Your task to perform on an android device: Search for acer predator on ebay.com, select the first entry, and add it to the cart. Image 0: 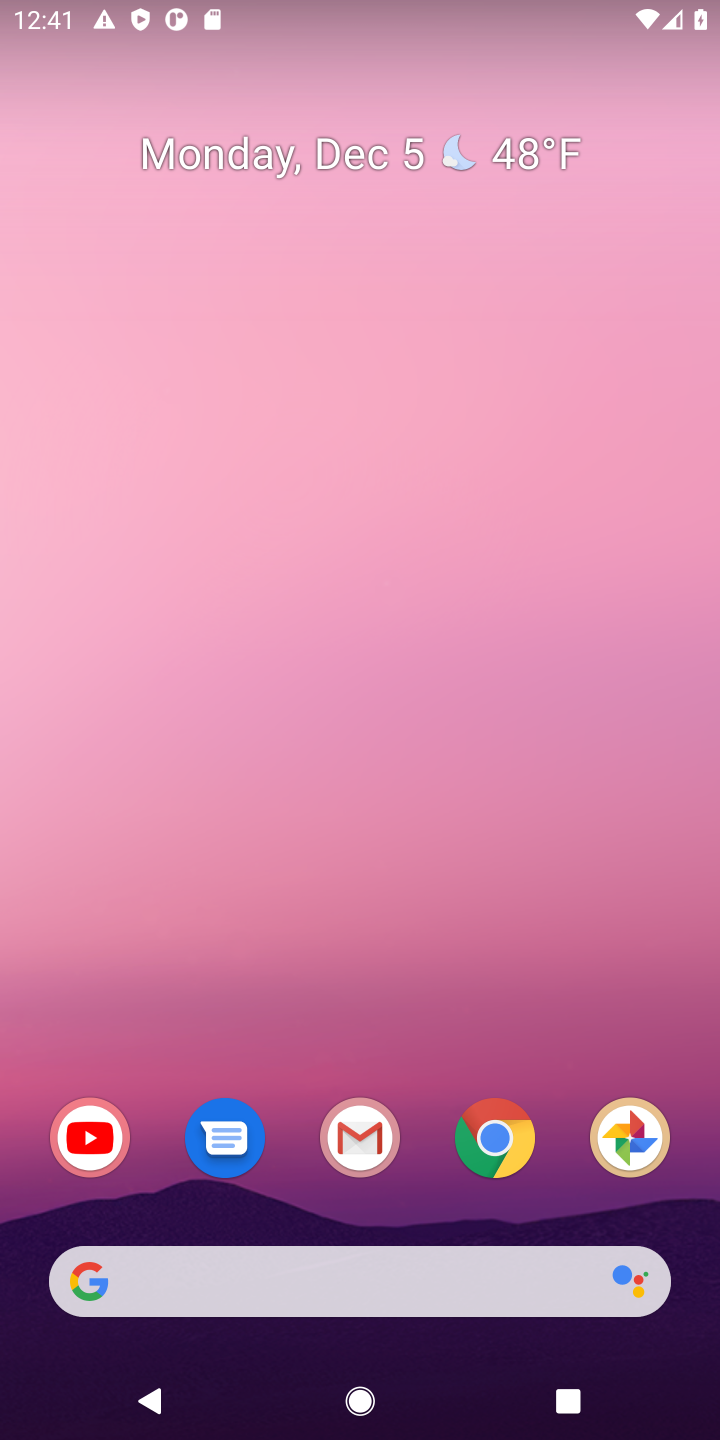
Step 0: click (474, 1169)
Your task to perform on an android device: Search for acer predator on ebay.com, select the first entry, and add it to the cart. Image 1: 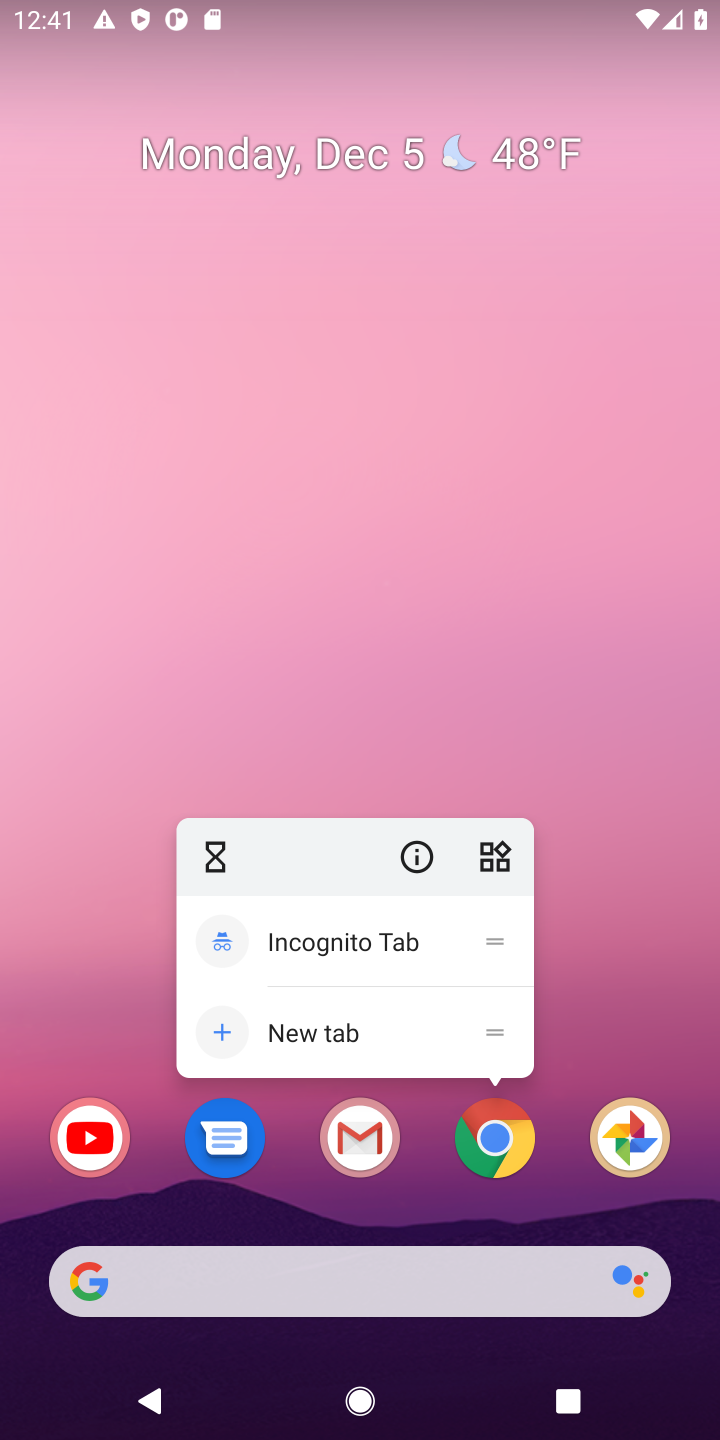
Step 1: click (486, 1167)
Your task to perform on an android device: Search for acer predator on ebay.com, select the first entry, and add it to the cart. Image 2: 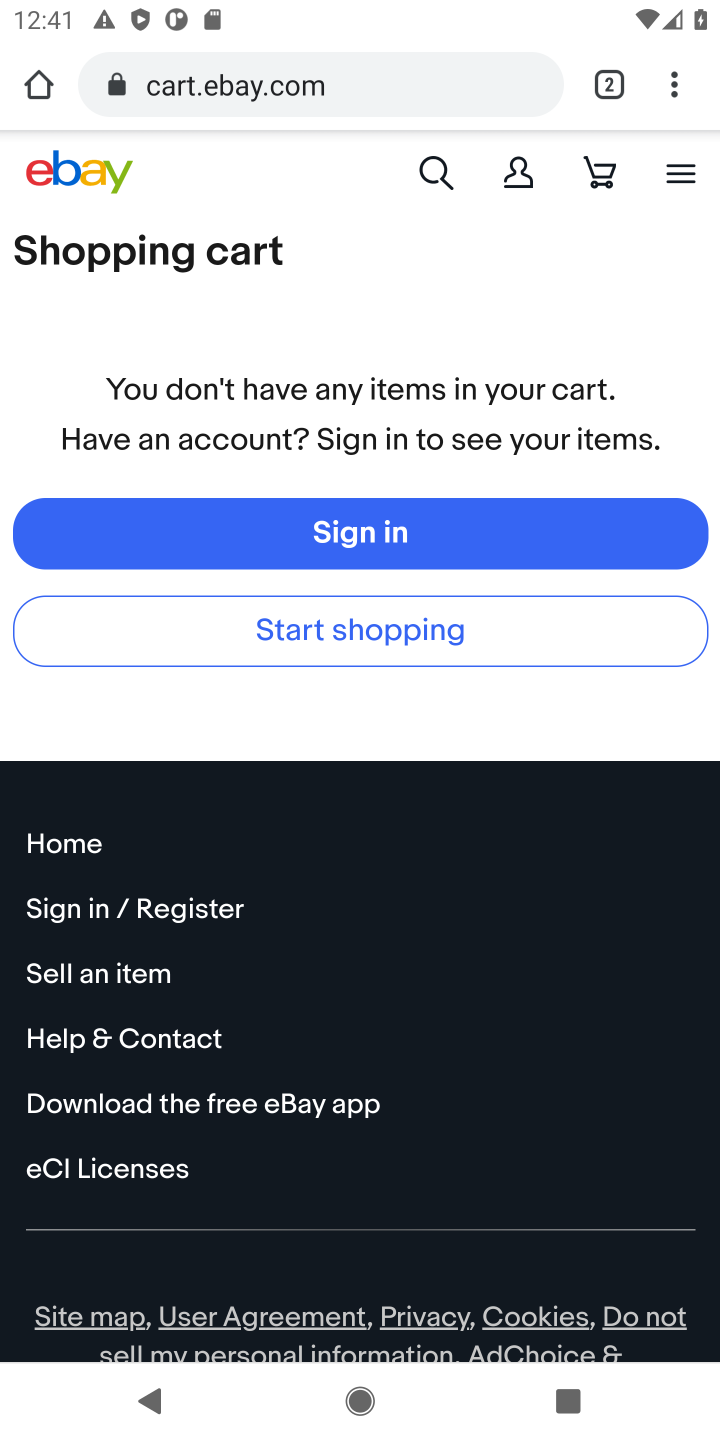
Step 2: click (435, 182)
Your task to perform on an android device: Search for acer predator on ebay.com, select the first entry, and add it to the cart. Image 3: 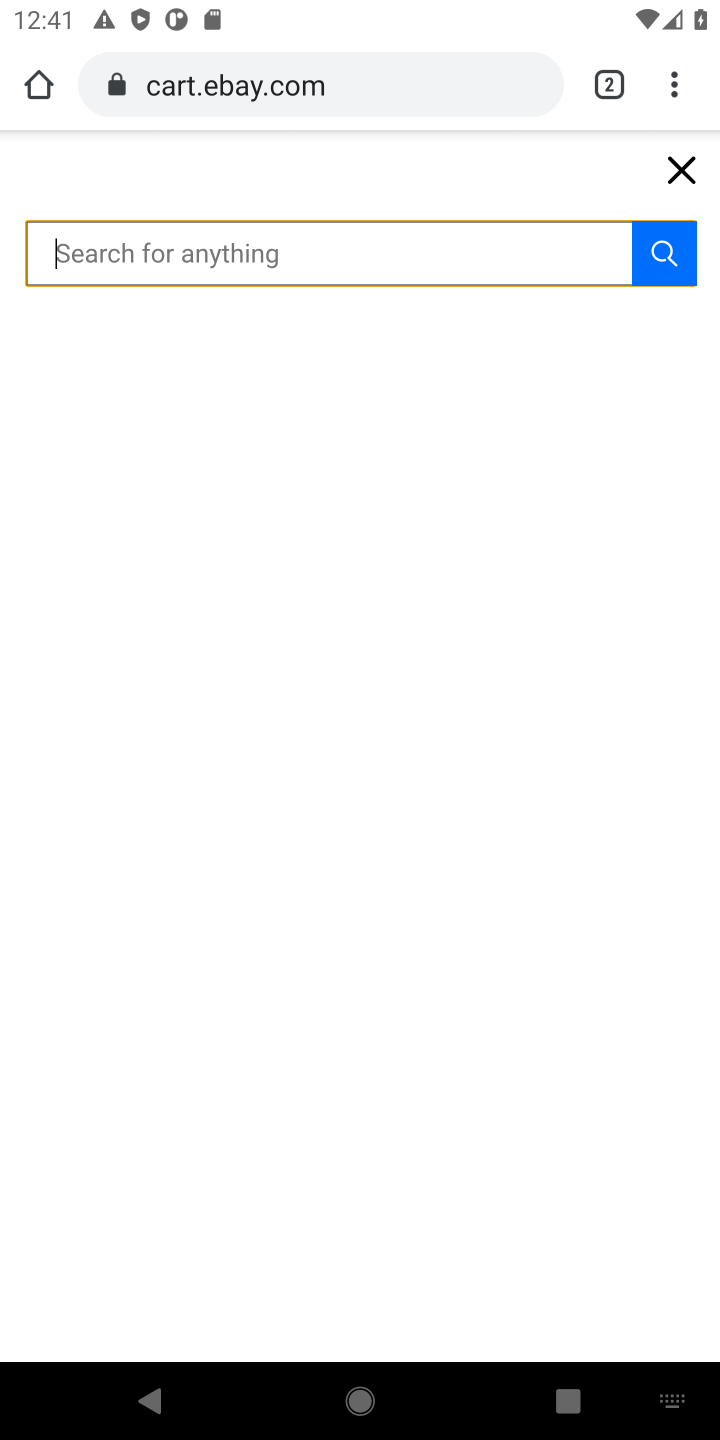
Step 3: type "acer predator"
Your task to perform on an android device: Search for acer predator on ebay.com, select the first entry, and add it to the cart. Image 4: 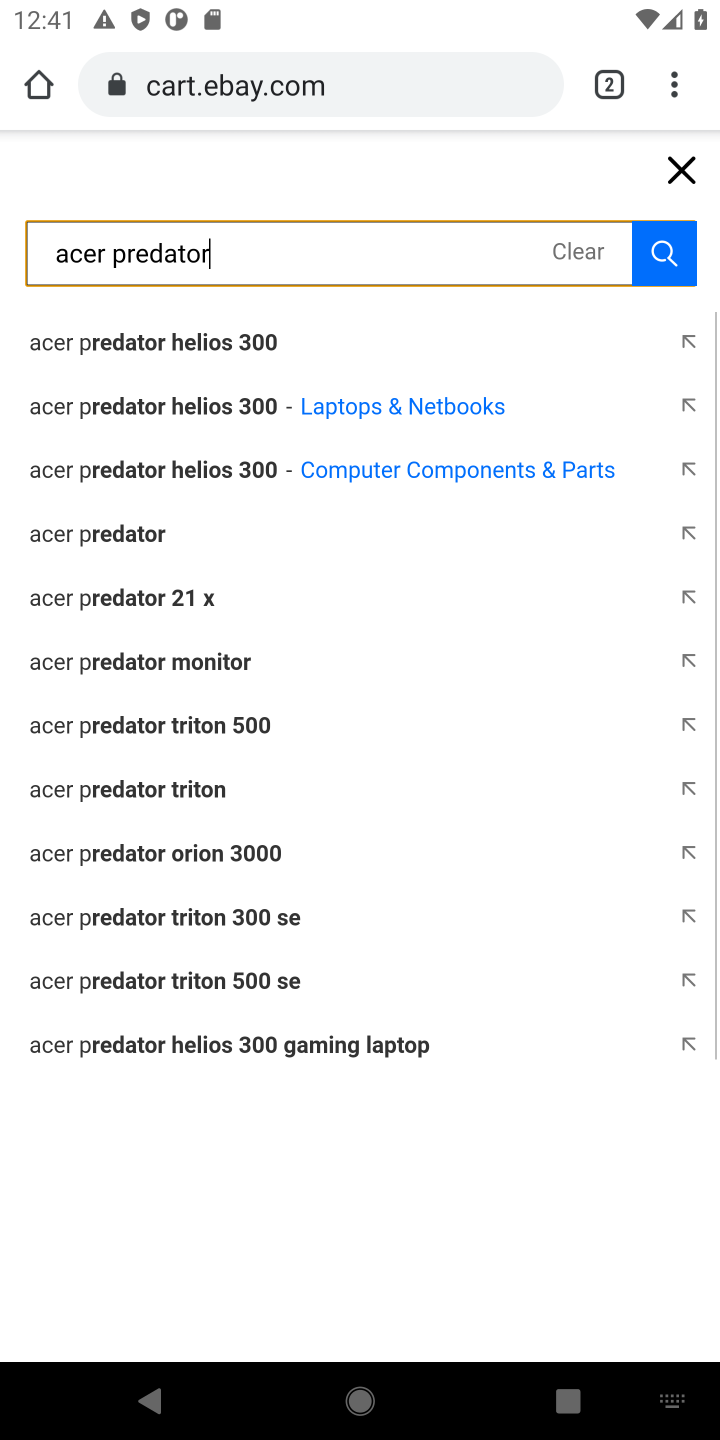
Step 4: type ""
Your task to perform on an android device: Search for acer predator on ebay.com, select the first entry, and add it to the cart. Image 5: 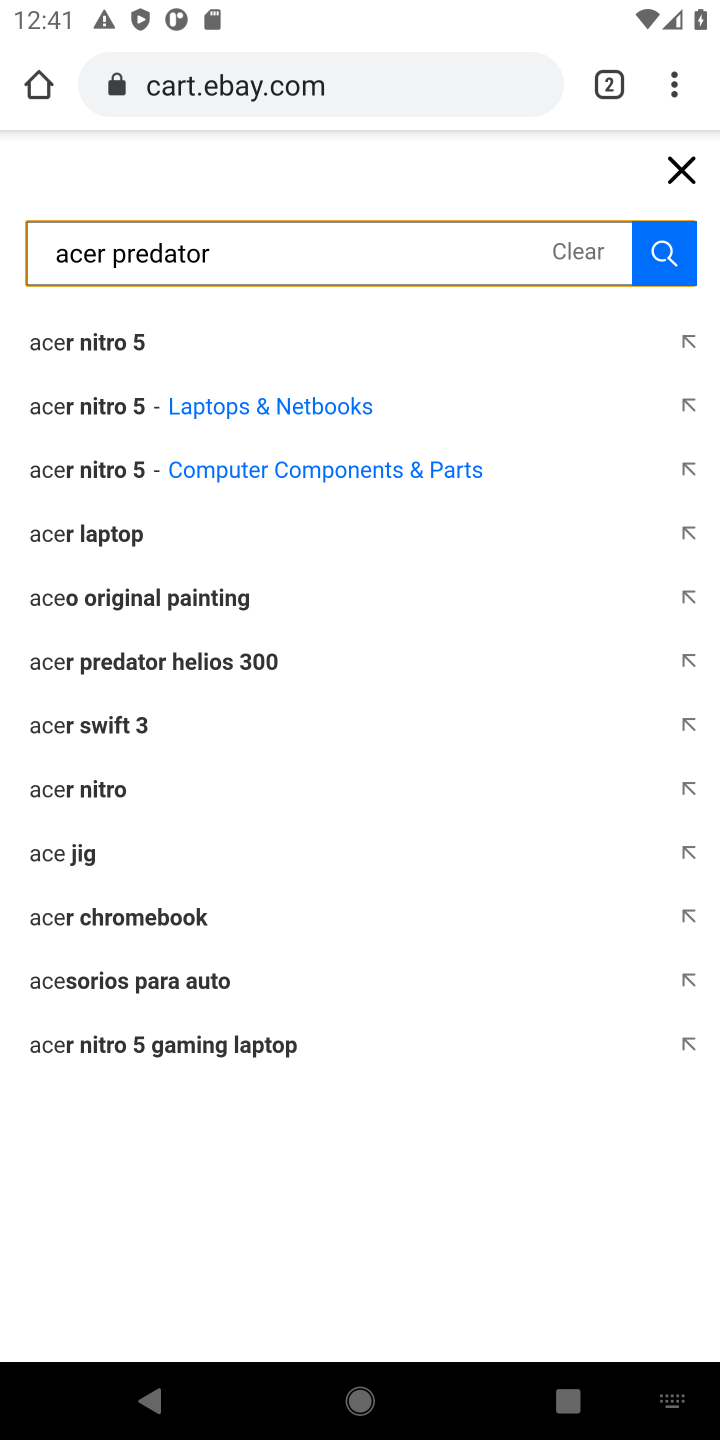
Step 5: click (658, 268)
Your task to perform on an android device: Search for acer predator on ebay.com, select the first entry, and add it to the cart. Image 6: 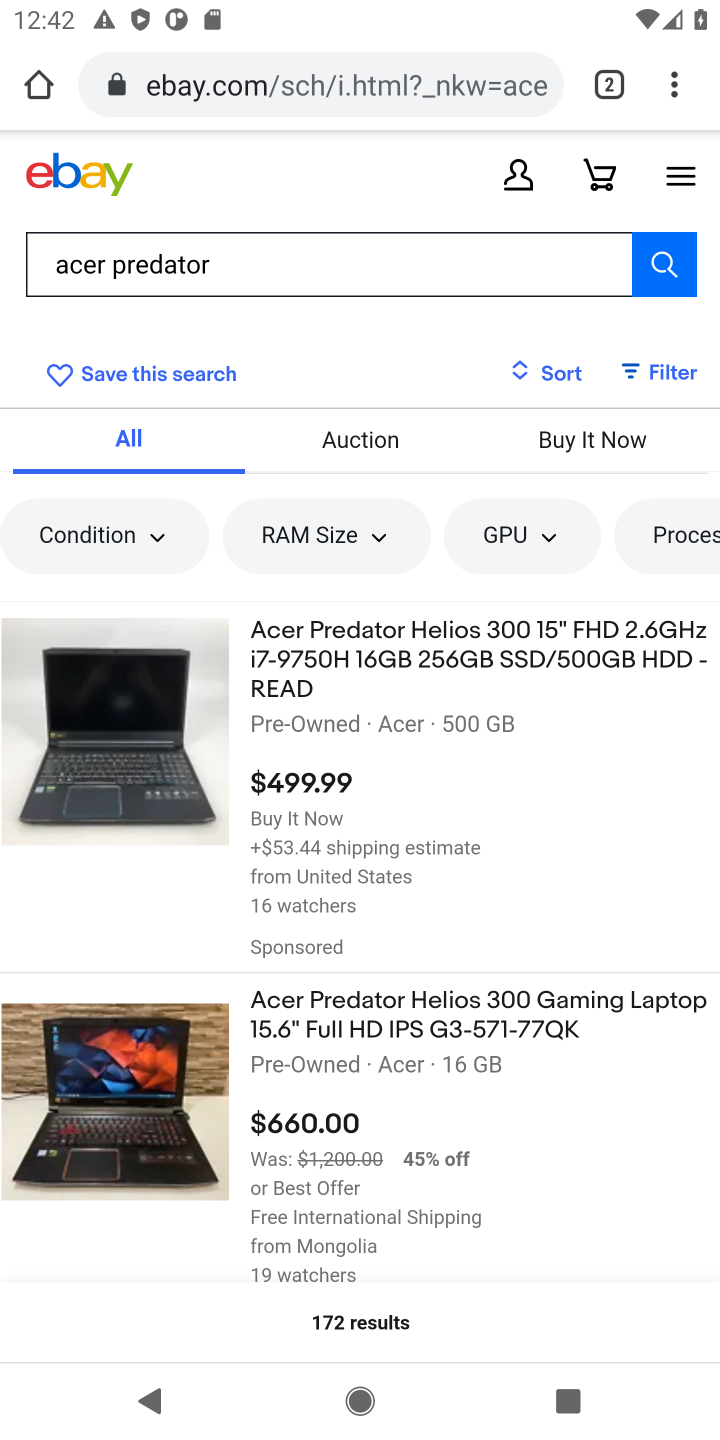
Step 6: click (389, 675)
Your task to perform on an android device: Search for acer predator on ebay.com, select the first entry, and add it to the cart. Image 7: 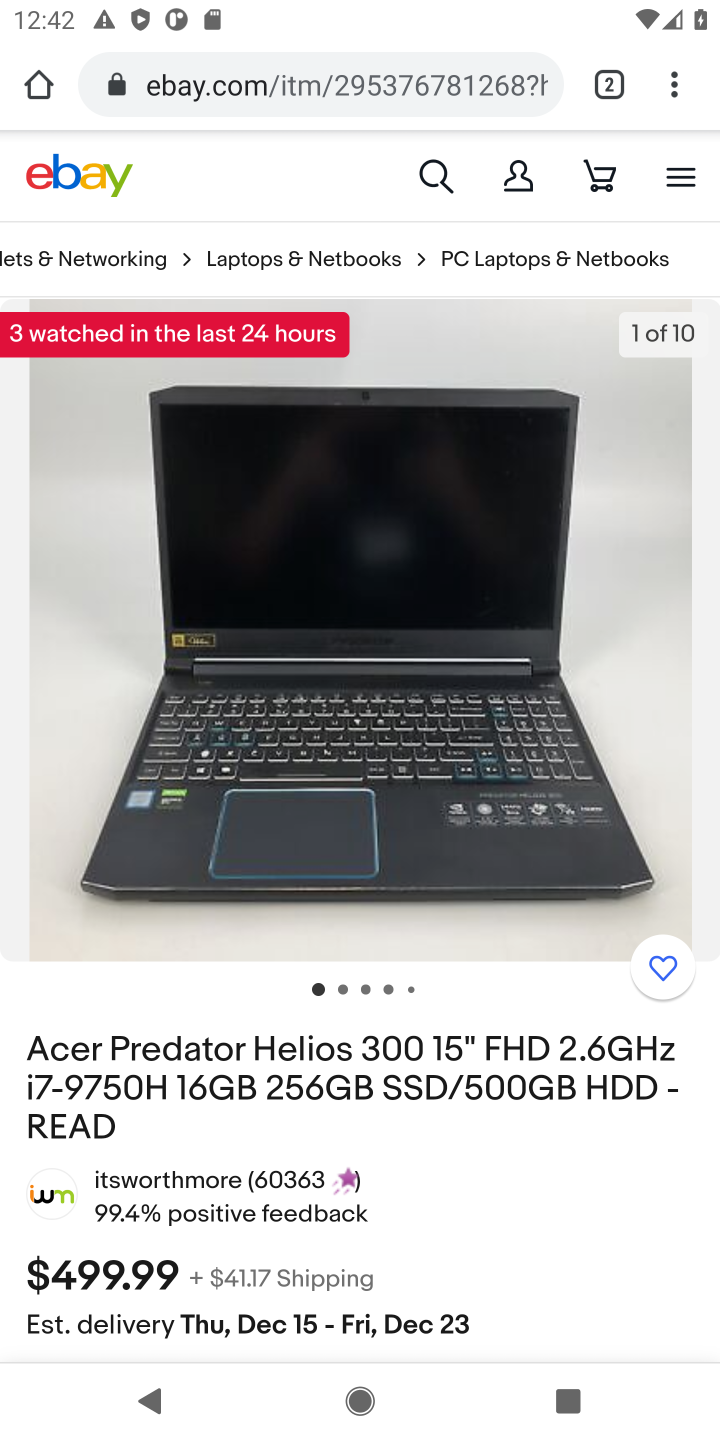
Step 7: drag from (458, 1275) to (439, 366)
Your task to perform on an android device: Search for acer predator on ebay.com, select the first entry, and add it to the cart. Image 8: 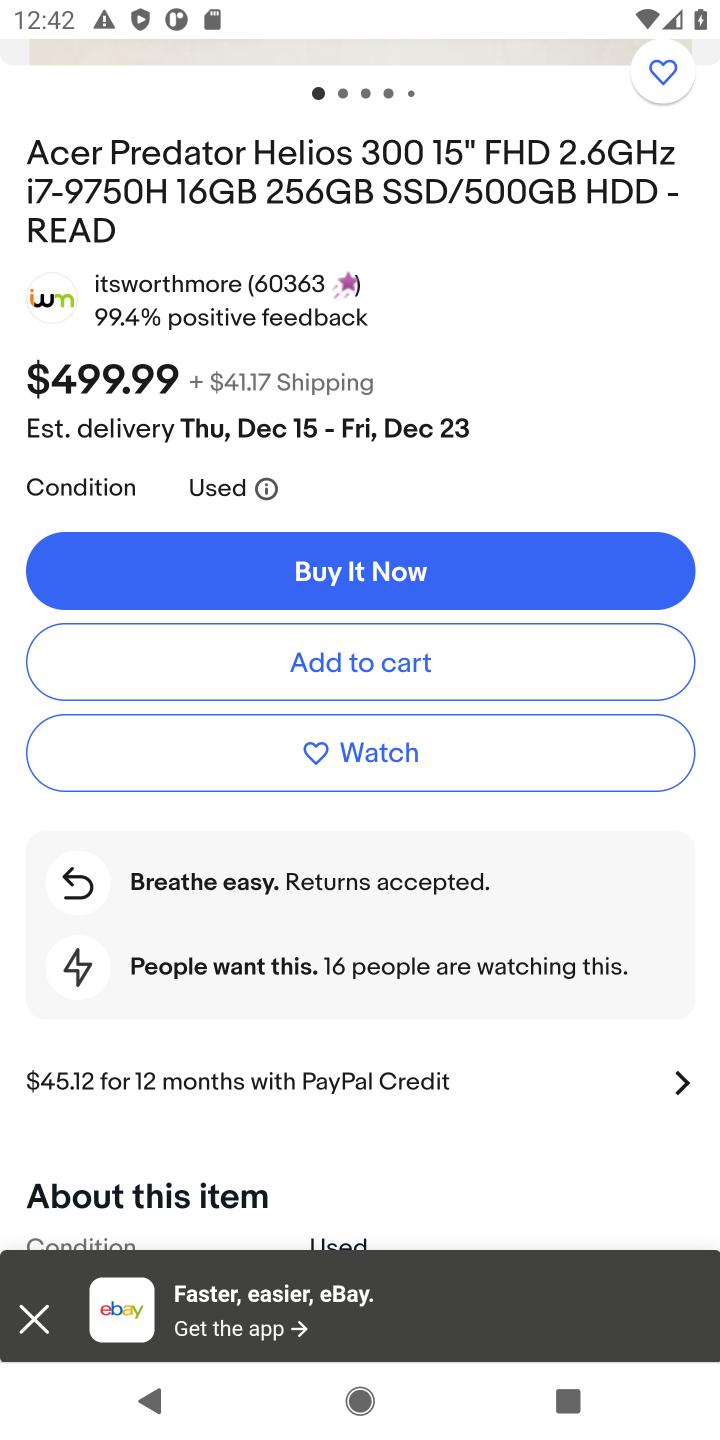
Step 8: click (387, 674)
Your task to perform on an android device: Search for acer predator on ebay.com, select the first entry, and add it to the cart. Image 9: 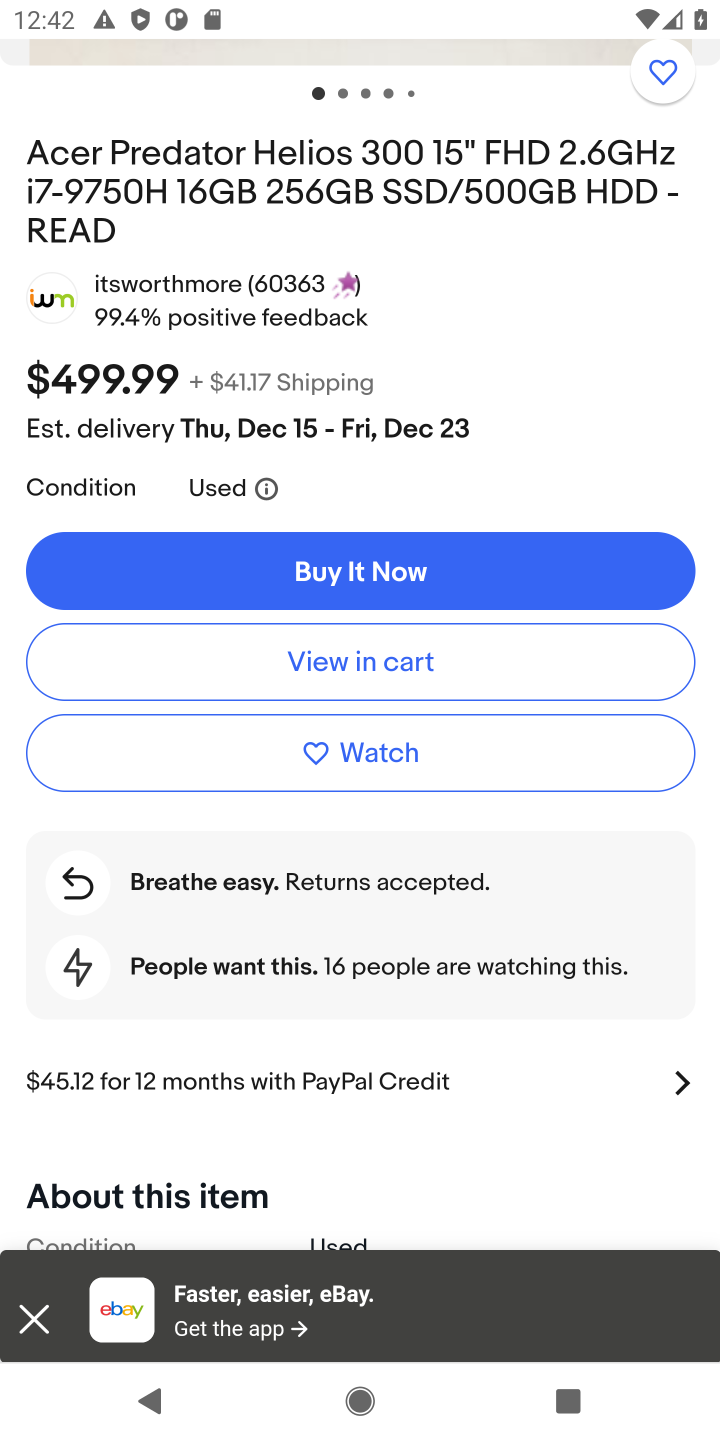
Step 9: task complete